Your task to perform on an android device: turn on notifications settings in the gmail app Image 0: 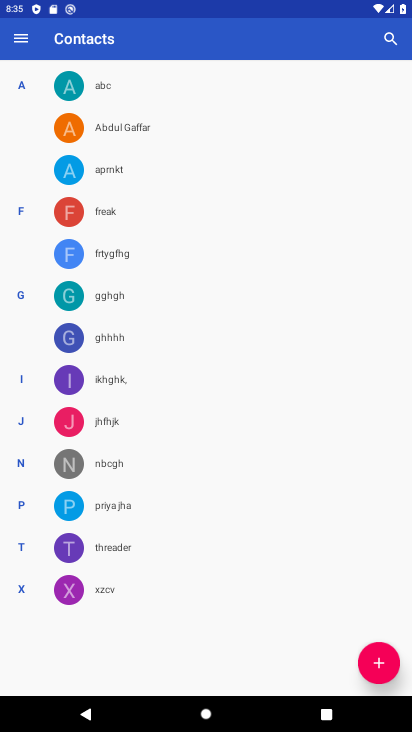
Step 0: press home button
Your task to perform on an android device: turn on notifications settings in the gmail app Image 1: 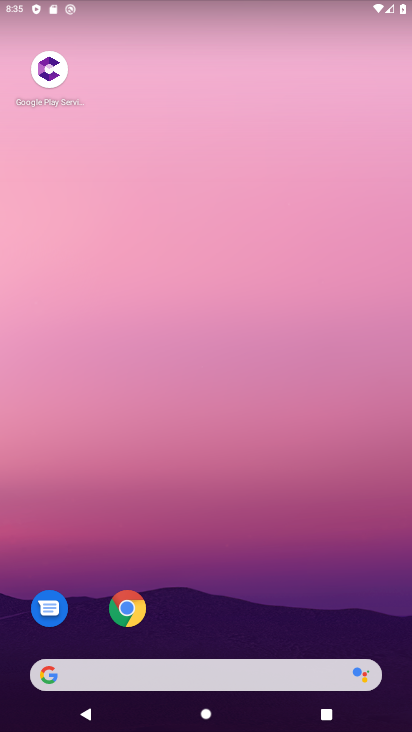
Step 1: drag from (247, 632) to (271, 3)
Your task to perform on an android device: turn on notifications settings in the gmail app Image 2: 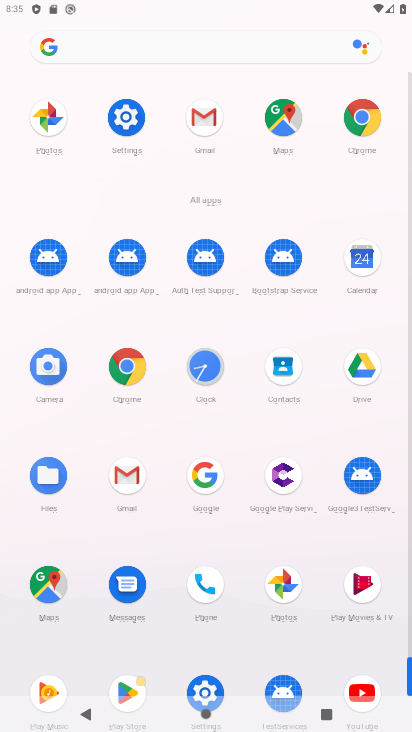
Step 2: click (125, 494)
Your task to perform on an android device: turn on notifications settings in the gmail app Image 3: 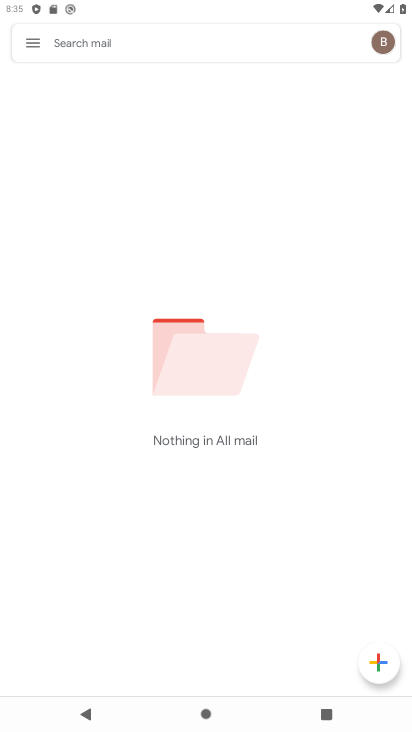
Step 3: click (34, 36)
Your task to perform on an android device: turn on notifications settings in the gmail app Image 4: 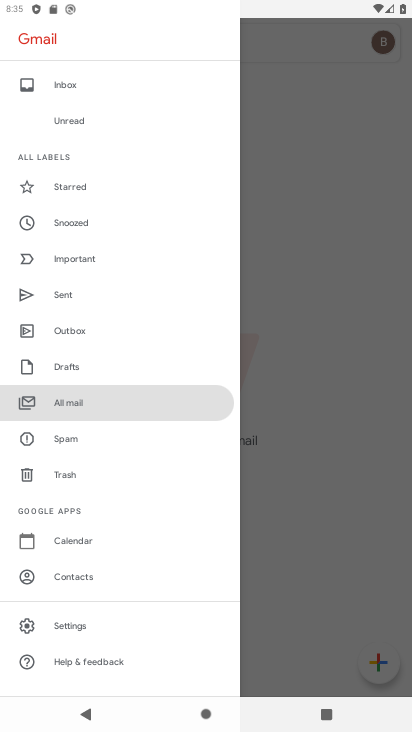
Step 4: click (68, 632)
Your task to perform on an android device: turn on notifications settings in the gmail app Image 5: 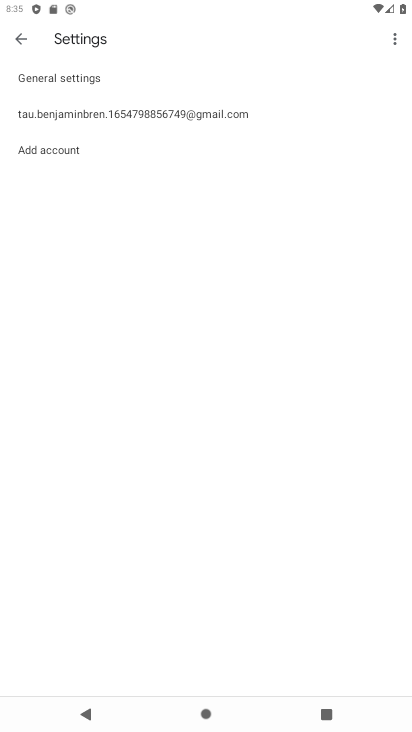
Step 5: click (101, 85)
Your task to perform on an android device: turn on notifications settings in the gmail app Image 6: 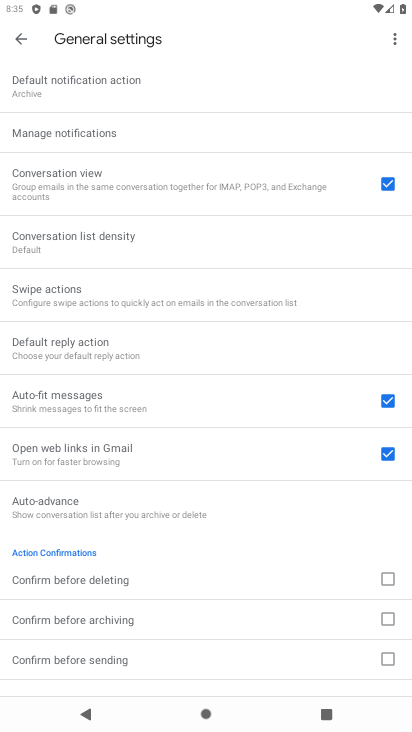
Step 6: click (89, 129)
Your task to perform on an android device: turn on notifications settings in the gmail app Image 7: 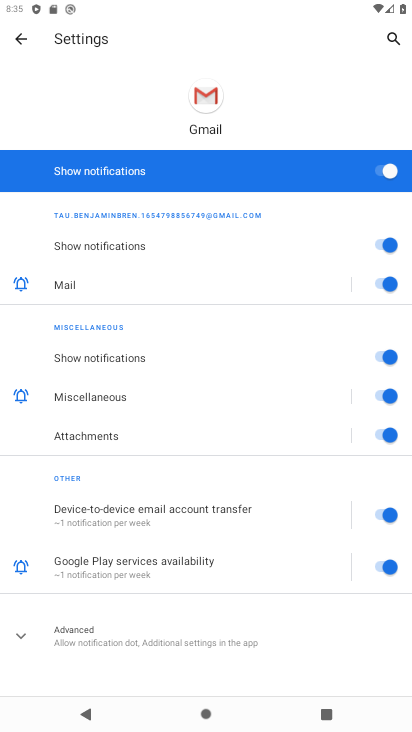
Step 7: task complete